Your task to perform on an android device: change text size in settings app Image 0: 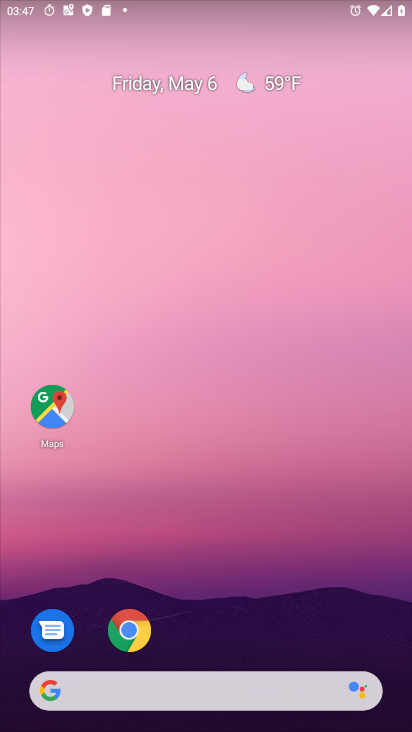
Step 0: drag from (243, 631) to (243, 283)
Your task to perform on an android device: change text size in settings app Image 1: 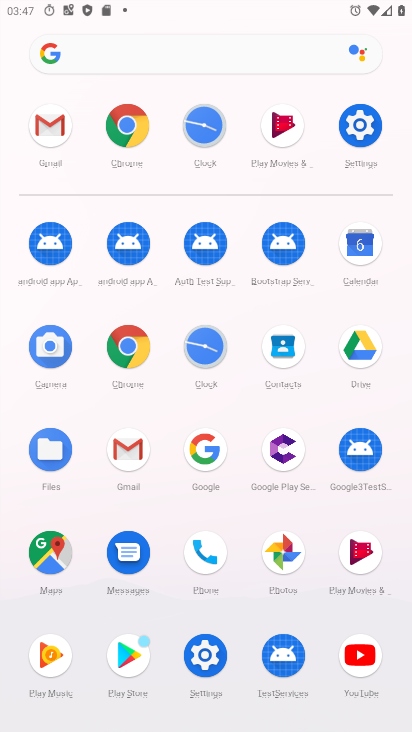
Step 1: click (346, 120)
Your task to perform on an android device: change text size in settings app Image 2: 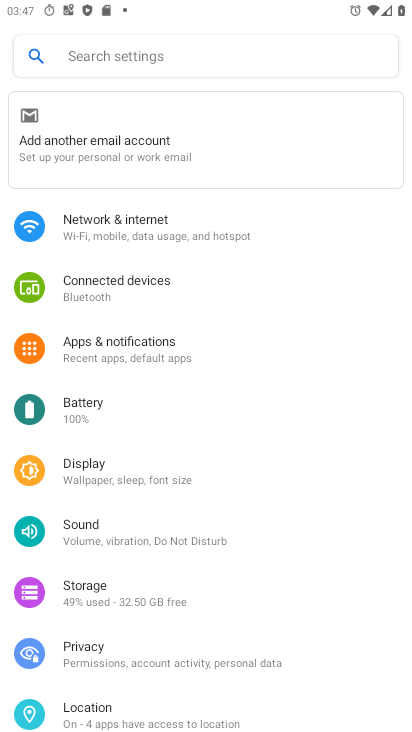
Step 2: click (140, 486)
Your task to perform on an android device: change text size in settings app Image 3: 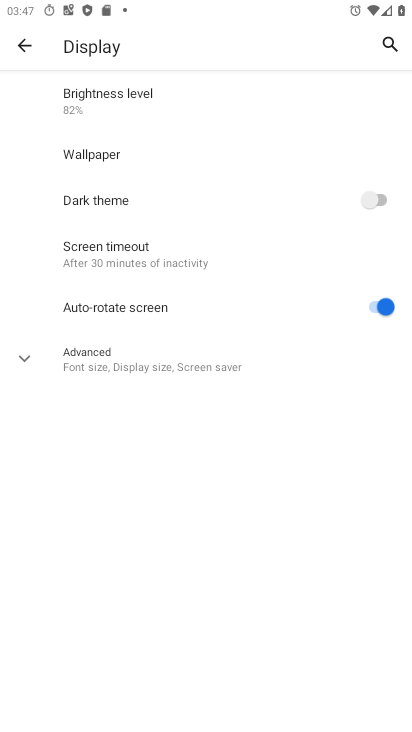
Step 3: click (124, 353)
Your task to perform on an android device: change text size in settings app Image 4: 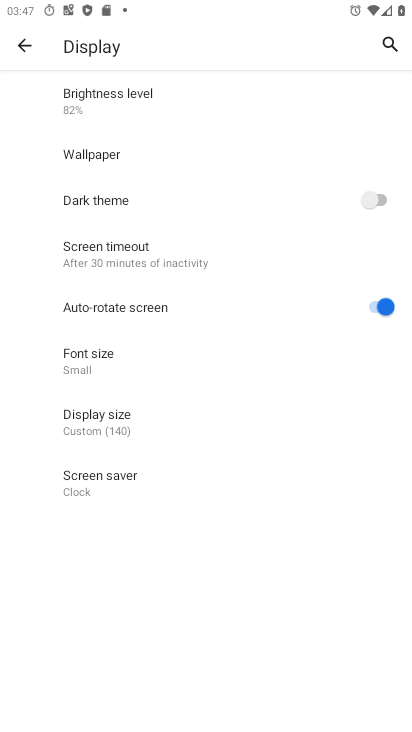
Step 4: click (95, 364)
Your task to perform on an android device: change text size in settings app Image 5: 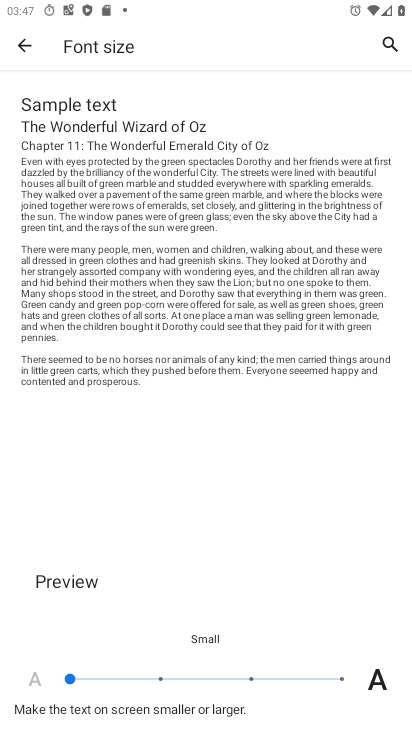
Step 5: click (169, 683)
Your task to perform on an android device: change text size in settings app Image 6: 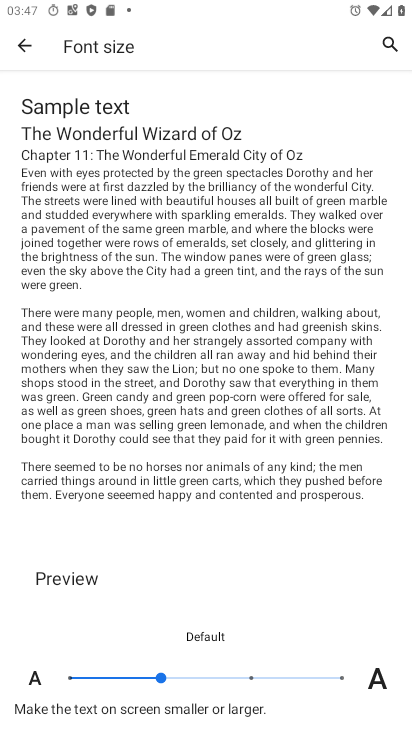
Step 6: task complete